Your task to perform on an android device: open app "Instagram" (install if not already installed) and enter user name: "nobler@yahoo.com" and password: "foraging" Image 0: 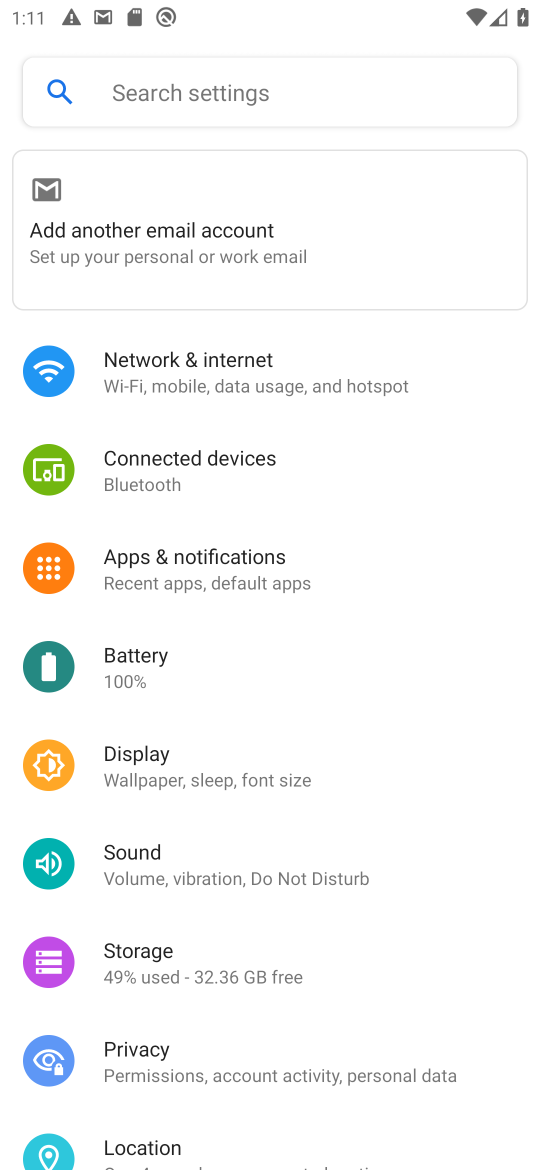
Step 0: press home button
Your task to perform on an android device: open app "Instagram" (install if not already installed) and enter user name: "nobler@yahoo.com" and password: "foraging" Image 1: 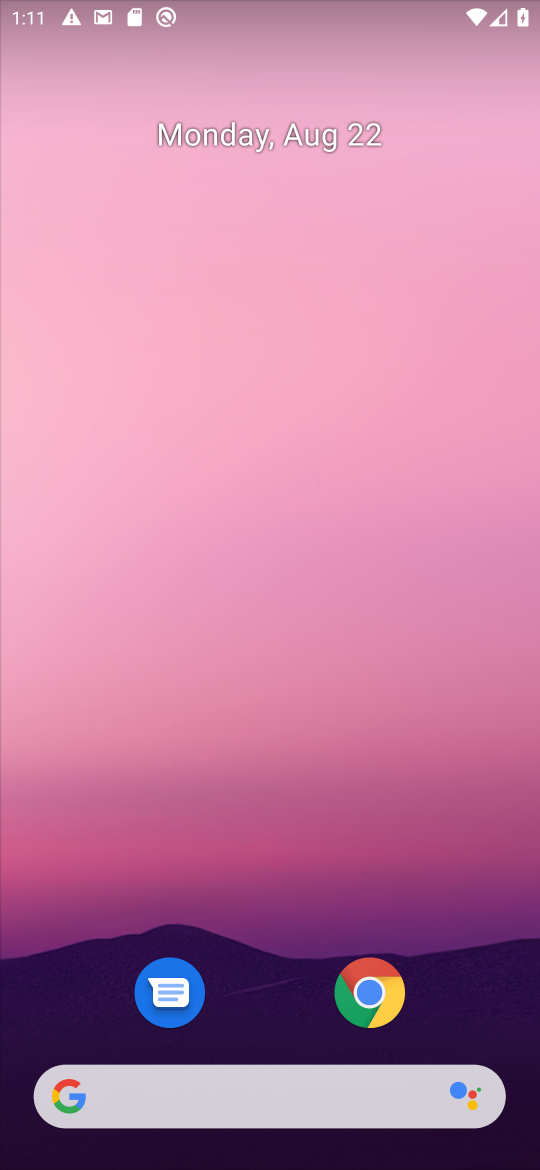
Step 1: drag from (248, 545) to (270, 65)
Your task to perform on an android device: open app "Instagram" (install if not already installed) and enter user name: "nobler@yahoo.com" and password: "foraging" Image 2: 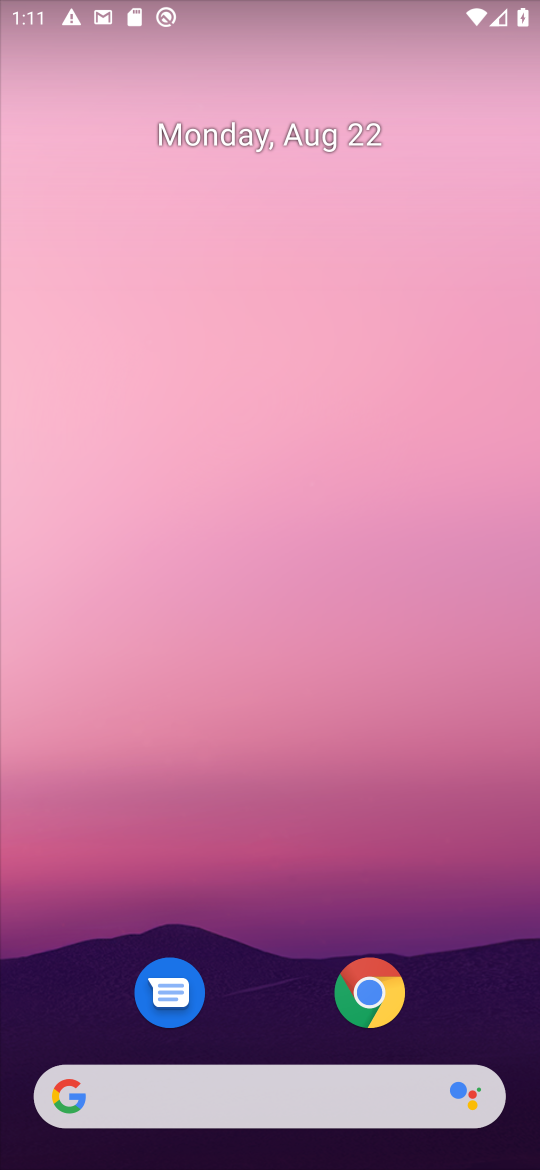
Step 2: drag from (274, 1067) to (317, 202)
Your task to perform on an android device: open app "Instagram" (install if not already installed) and enter user name: "nobler@yahoo.com" and password: "foraging" Image 3: 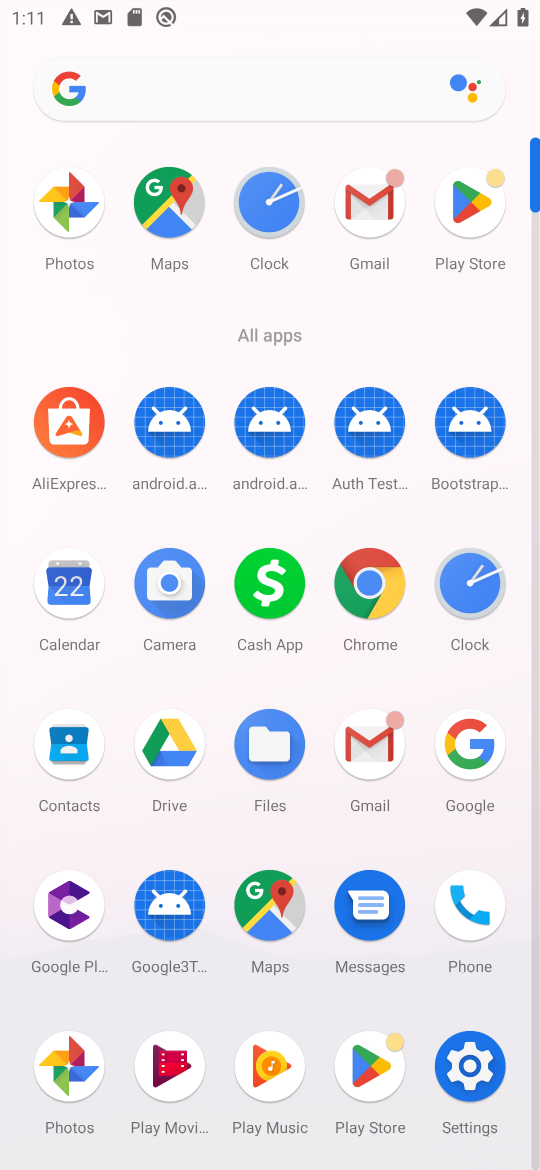
Step 3: click (461, 216)
Your task to perform on an android device: open app "Instagram" (install if not already installed) and enter user name: "nobler@yahoo.com" and password: "foraging" Image 4: 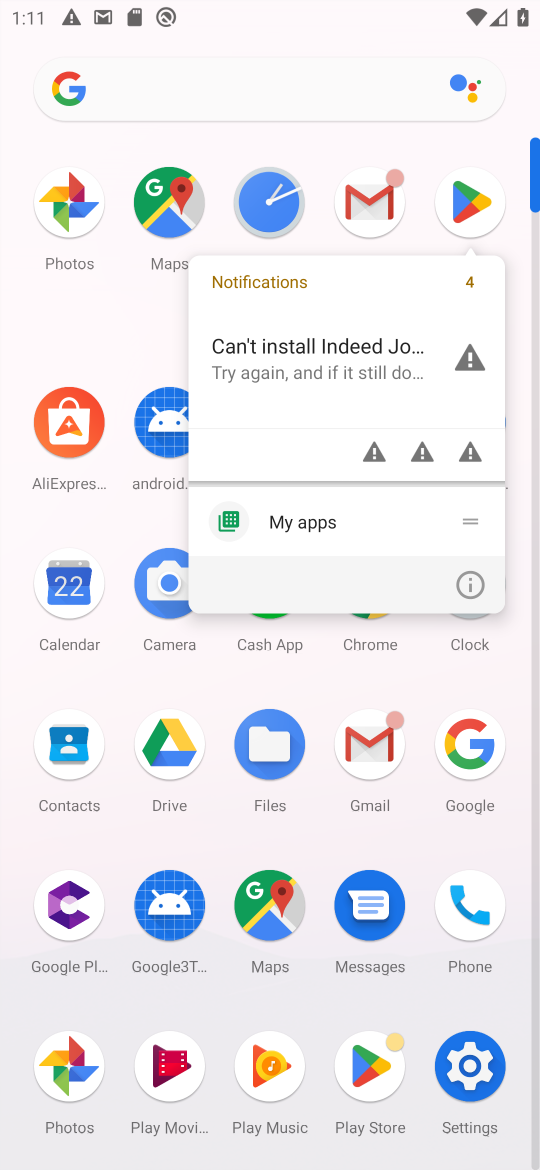
Step 4: click (465, 206)
Your task to perform on an android device: open app "Instagram" (install if not already installed) and enter user name: "nobler@yahoo.com" and password: "foraging" Image 5: 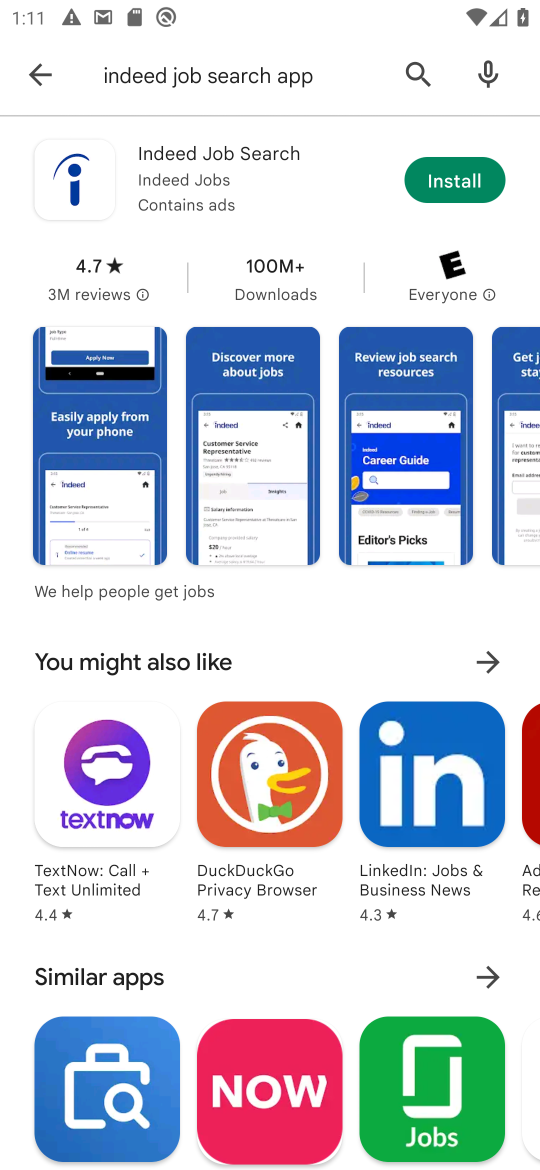
Step 5: click (414, 72)
Your task to perform on an android device: open app "Instagram" (install if not already installed) and enter user name: "nobler@yahoo.com" and password: "foraging" Image 6: 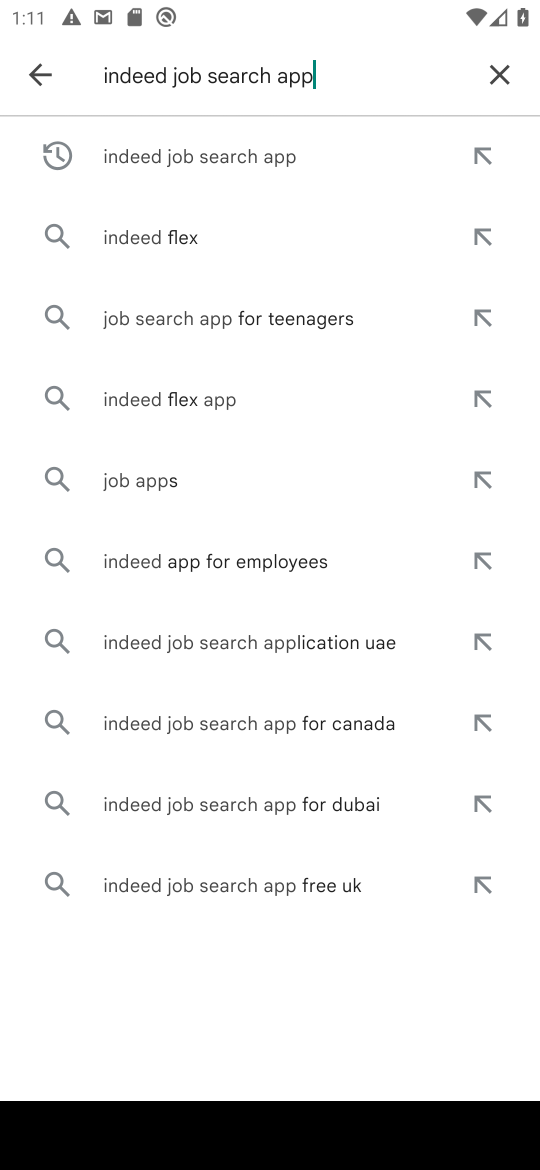
Step 6: click (492, 85)
Your task to perform on an android device: open app "Instagram" (install if not already installed) and enter user name: "nobler@yahoo.com" and password: "foraging" Image 7: 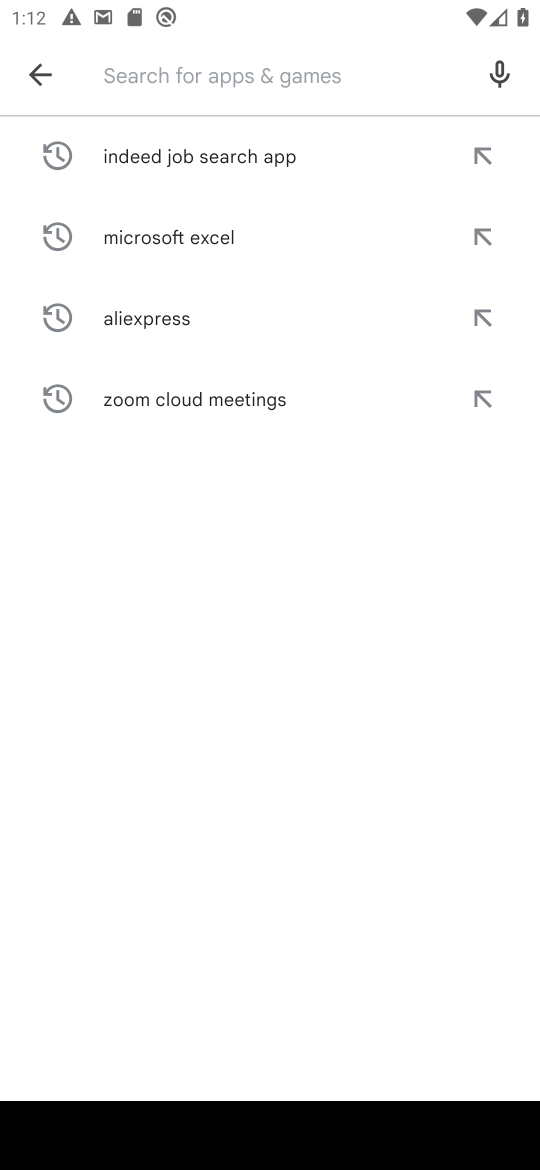
Step 7: type "Instagram"
Your task to perform on an android device: open app "Instagram" (install if not already installed) and enter user name: "nobler@yahoo.com" and password: "foraging" Image 8: 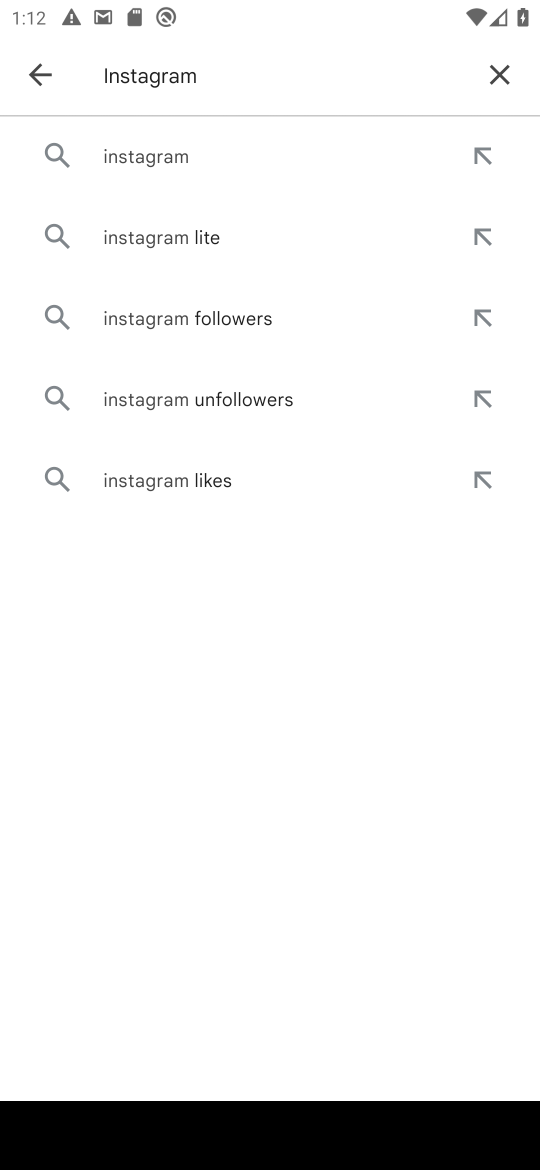
Step 8: click (182, 160)
Your task to perform on an android device: open app "Instagram" (install if not already installed) and enter user name: "nobler@yahoo.com" and password: "foraging" Image 9: 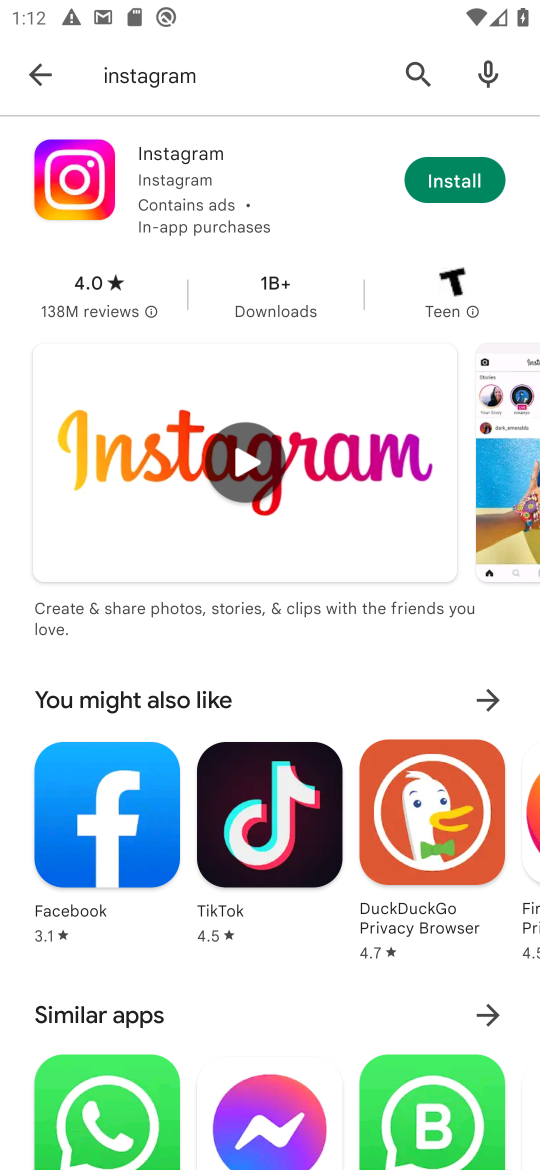
Step 9: click (446, 183)
Your task to perform on an android device: open app "Instagram" (install if not already installed) and enter user name: "nobler@yahoo.com" and password: "foraging" Image 10: 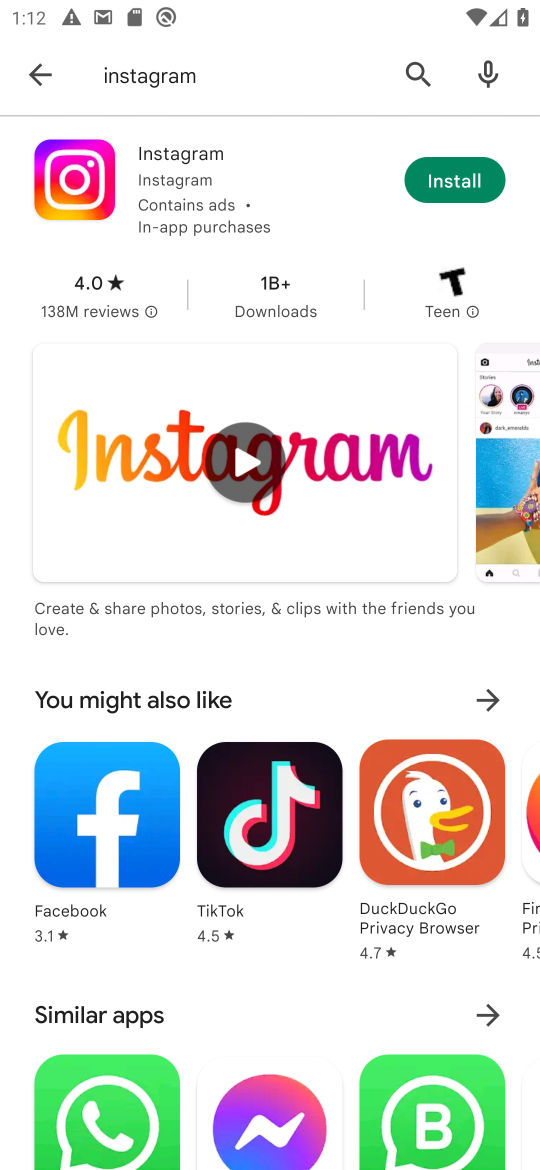
Step 10: task complete